Your task to perform on an android device: Show me the alarms in the clock app Image 0: 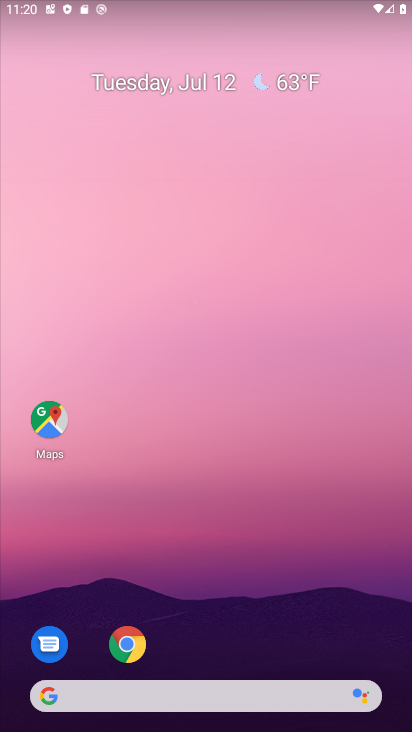
Step 0: drag from (187, 696) to (208, 66)
Your task to perform on an android device: Show me the alarms in the clock app Image 1: 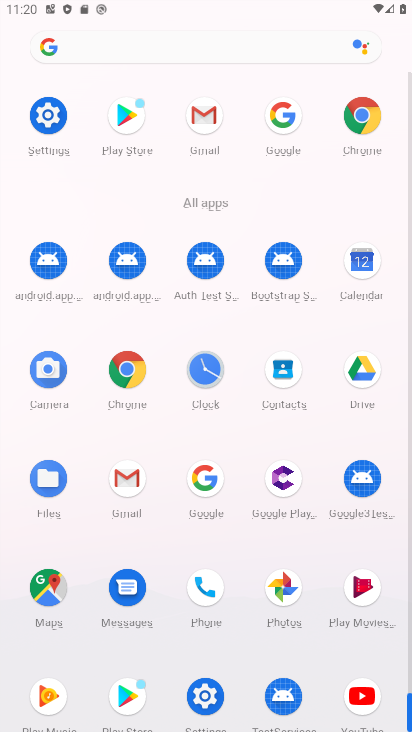
Step 1: click (204, 371)
Your task to perform on an android device: Show me the alarms in the clock app Image 2: 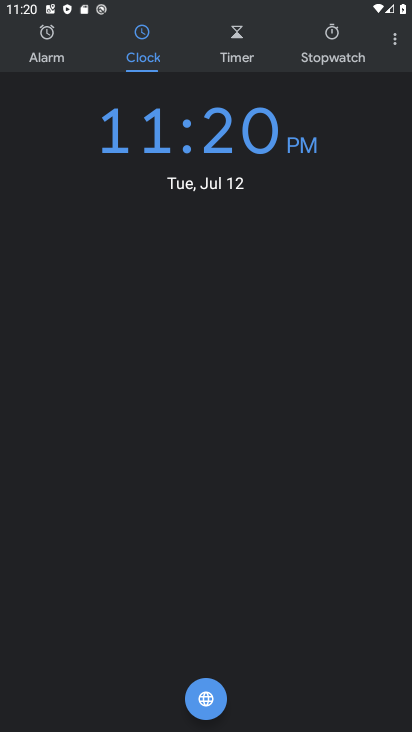
Step 2: click (50, 36)
Your task to perform on an android device: Show me the alarms in the clock app Image 3: 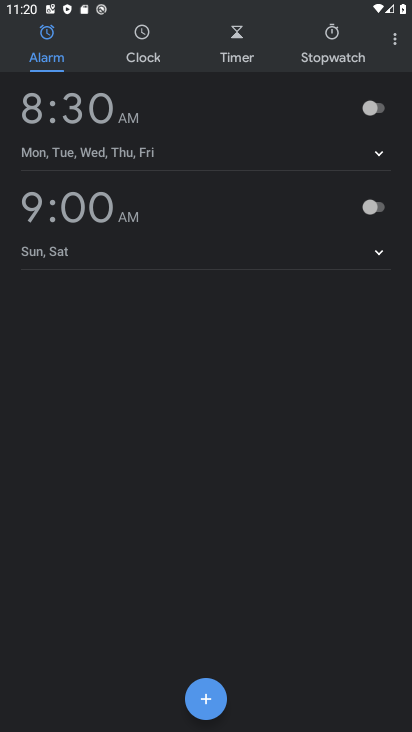
Step 3: click (205, 699)
Your task to perform on an android device: Show me the alarms in the clock app Image 4: 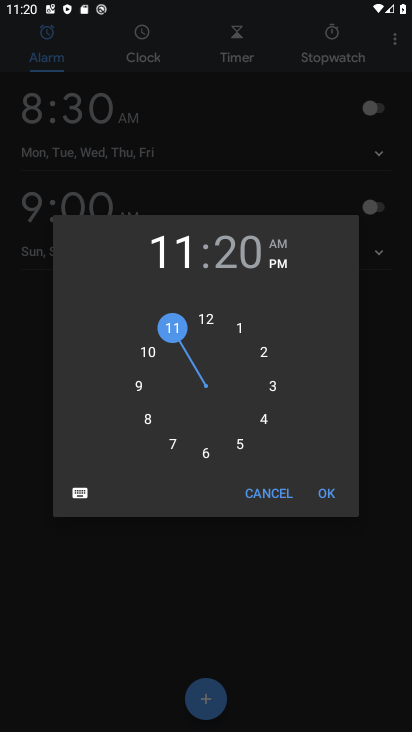
Step 4: click (154, 426)
Your task to perform on an android device: Show me the alarms in the clock app Image 5: 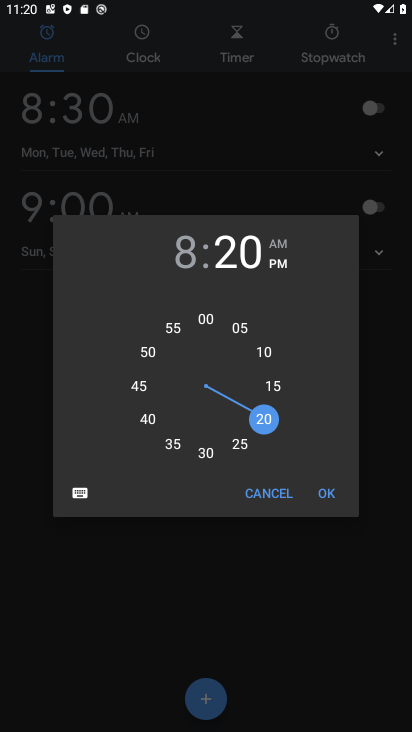
Step 5: click (154, 426)
Your task to perform on an android device: Show me the alarms in the clock app Image 6: 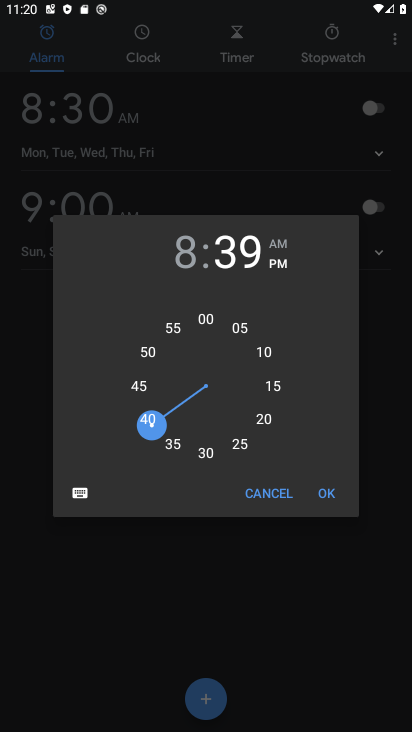
Step 6: click (329, 491)
Your task to perform on an android device: Show me the alarms in the clock app Image 7: 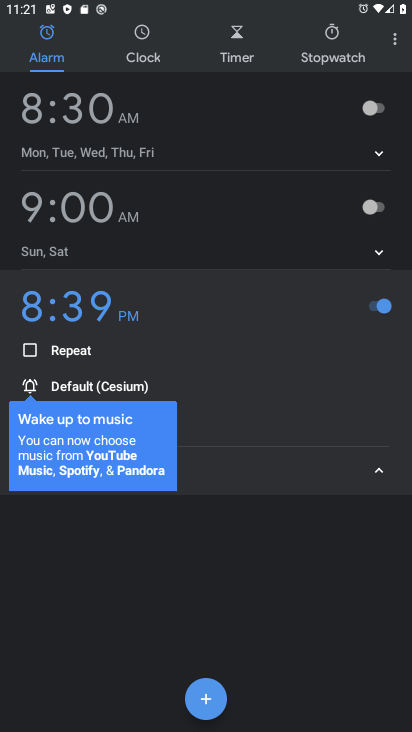
Step 7: task complete